Your task to perform on an android device: allow notifications from all sites in the chrome app Image 0: 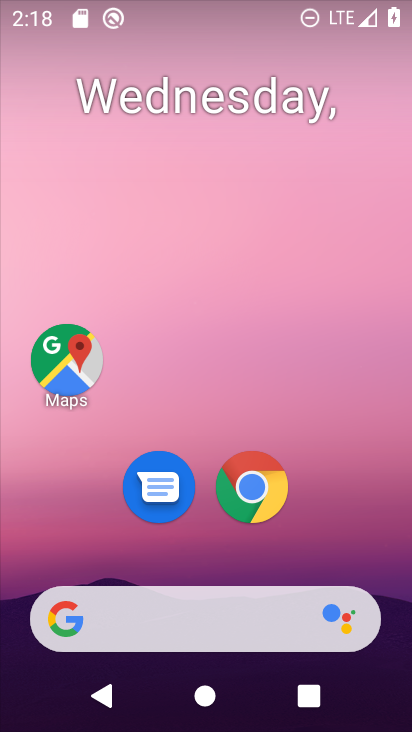
Step 0: drag from (402, 623) to (226, 51)
Your task to perform on an android device: allow notifications from all sites in the chrome app Image 1: 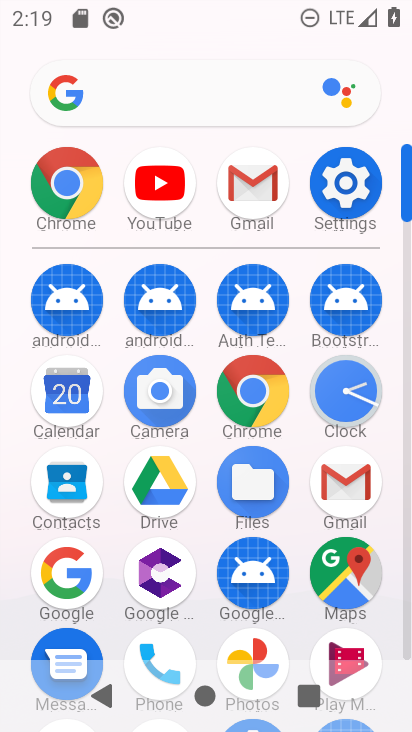
Step 1: click (272, 394)
Your task to perform on an android device: allow notifications from all sites in the chrome app Image 2: 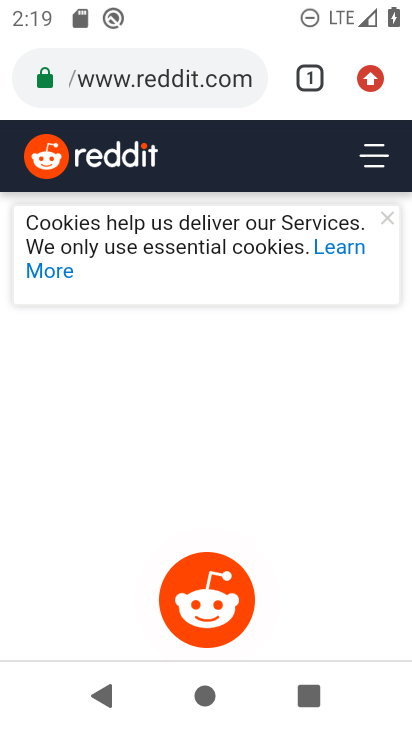
Step 2: press back button
Your task to perform on an android device: allow notifications from all sites in the chrome app Image 3: 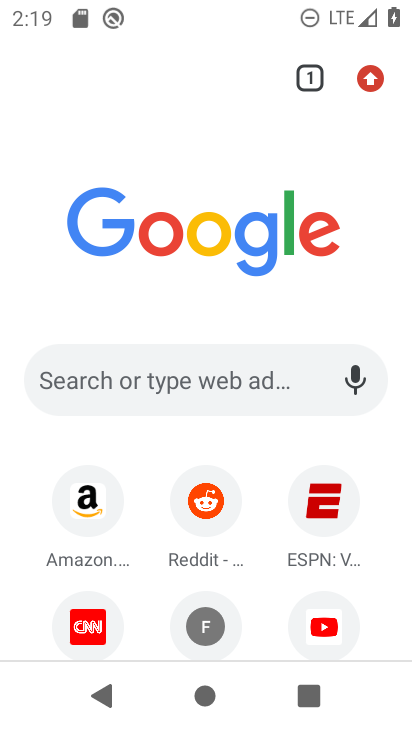
Step 3: click (364, 80)
Your task to perform on an android device: allow notifications from all sites in the chrome app Image 4: 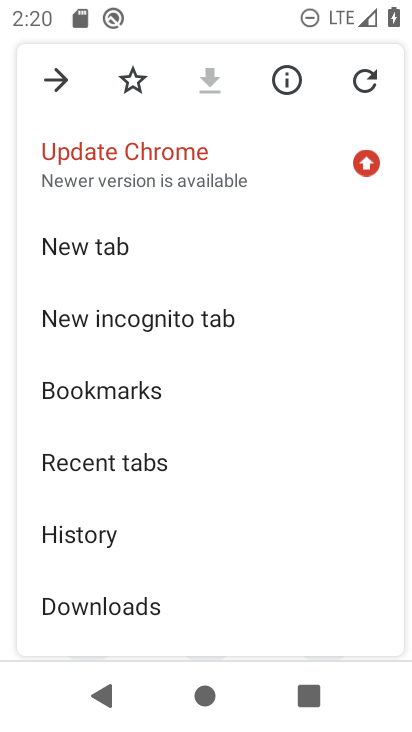
Step 4: drag from (168, 596) to (239, 327)
Your task to perform on an android device: allow notifications from all sites in the chrome app Image 5: 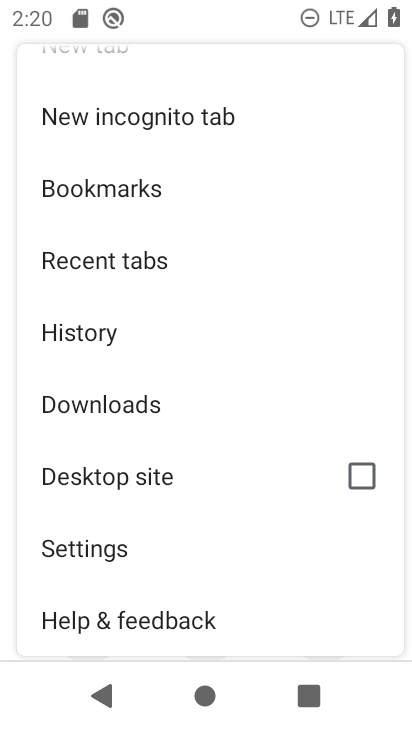
Step 5: click (195, 549)
Your task to perform on an android device: allow notifications from all sites in the chrome app Image 6: 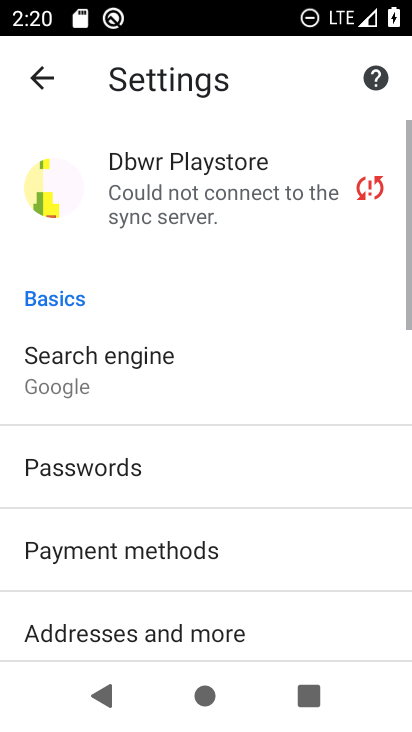
Step 6: drag from (187, 583) to (234, 219)
Your task to perform on an android device: allow notifications from all sites in the chrome app Image 7: 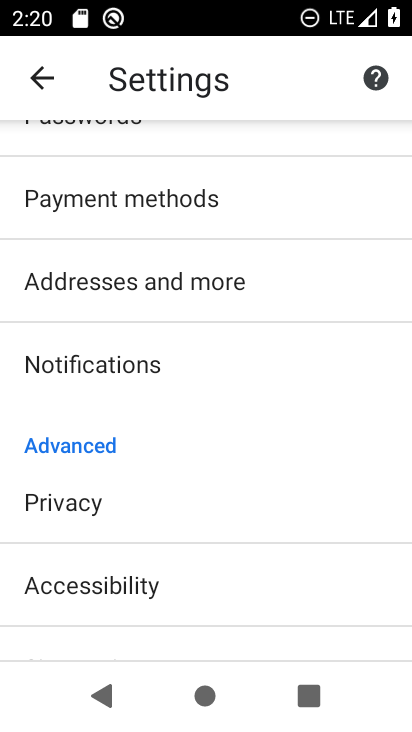
Step 7: drag from (180, 586) to (294, 279)
Your task to perform on an android device: allow notifications from all sites in the chrome app Image 8: 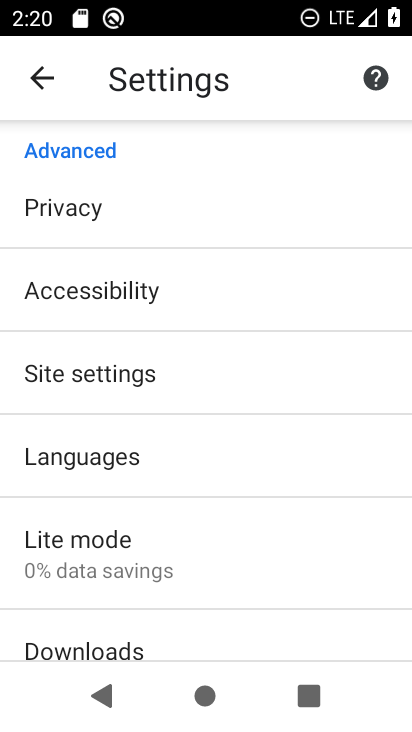
Step 8: drag from (221, 205) to (231, 523)
Your task to perform on an android device: allow notifications from all sites in the chrome app Image 9: 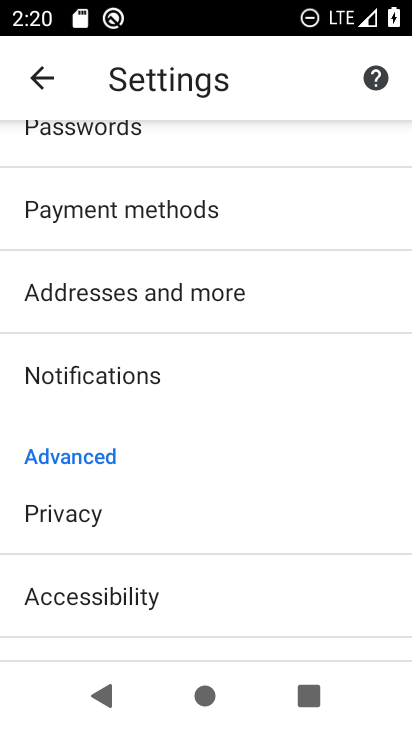
Step 9: drag from (233, 267) to (227, 502)
Your task to perform on an android device: allow notifications from all sites in the chrome app Image 10: 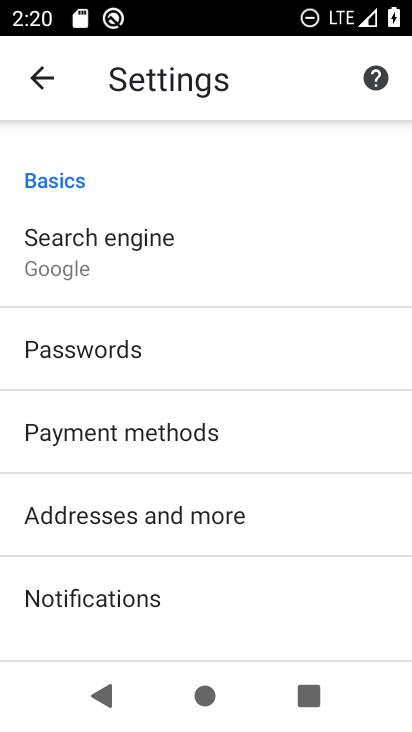
Step 10: click (184, 575)
Your task to perform on an android device: allow notifications from all sites in the chrome app Image 11: 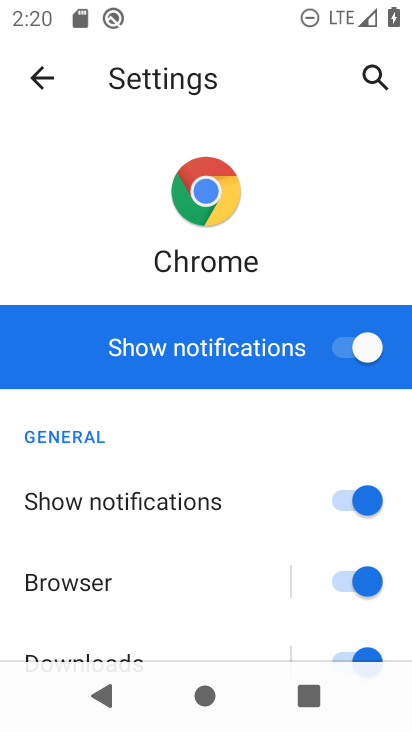
Step 11: task complete